Your task to perform on an android device: Search for "usb-c" on walmart.com, select the first entry, add it to the cart, then select checkout. Image 0: 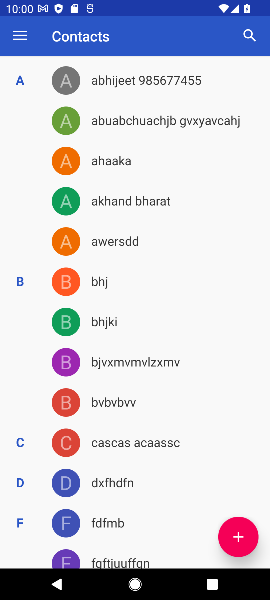
Step 0: press home button
Your task to perform on an android device: Search for "usb-c" on walmart.com, select the first entry, add it to the cart, then select checkout. Image 1: 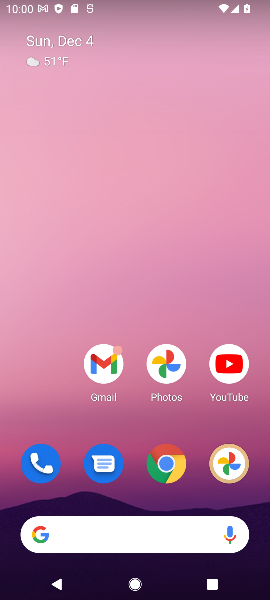
Step 1: click (133, 546)
Your task to perform on an android device: Search for "usb-c" on walmart.com, select the first entry, add it to the cart, then select checkout. Image 2: 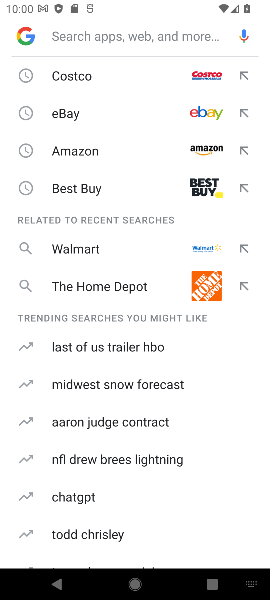
Step 2: type "walmart"
Your task to perform on an android device: Search for "usb-c" on walmart.com, select the first entry, add it to the cart, then select checkout. Image 3: 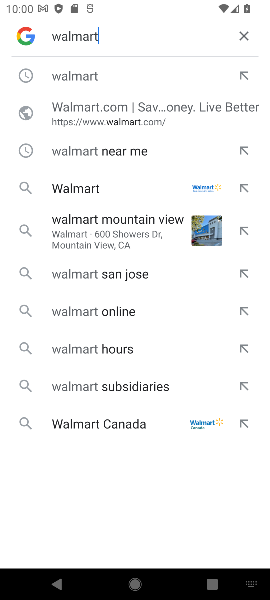
Step 3: click (131, 113)
Your task to perform on an android device: Search for "usb-c" on walmart.com, select the first entry, add it to the cart, then select checkout. Image 4: 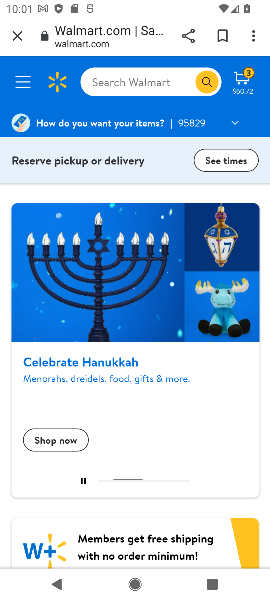
Step 4: click (160, 75)
Your task to perform on an android device: Search for "usb-c" on walmart.com, select the first entry, add it to the cart, then select checkout. Image 5: 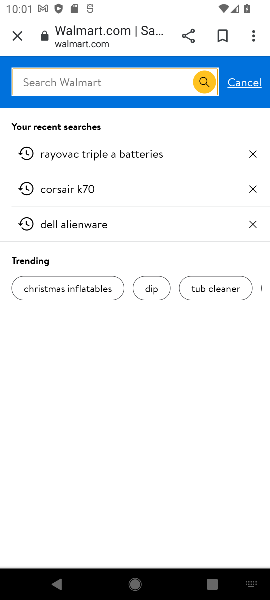
Step 5: type "usb-c"
Your task to perform on an android device: Search for "usb-c" on walmart.com, select the first entry, add it to the cart, then select checkout. Image 6: 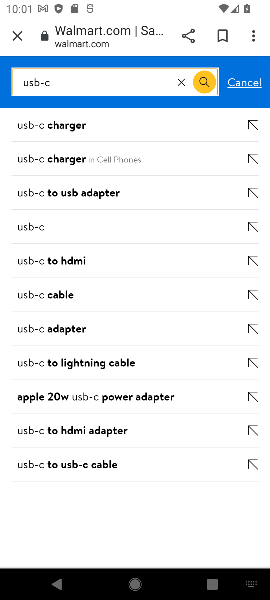
Step 6: click (130, 142)
Your task to perform on an android device: Search for "usb-c" on walmart.com, select the first entry, add it to the cart, then select checkout. Image 7: 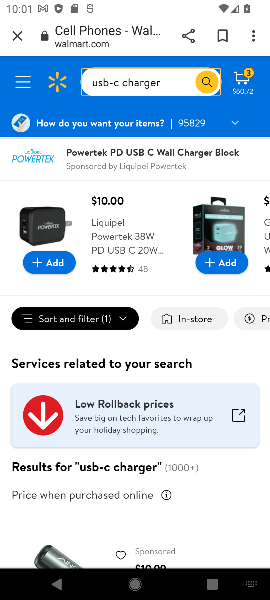
Step 7: task complete